Your task to perform on an android device: change the clock style Image 0: 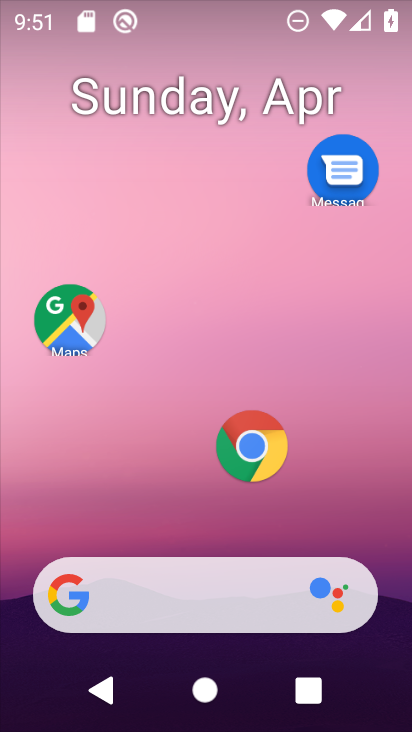
Step 0: drag from (189, 518) to (231, 58)
Your task to perform on an android device: change the clock style Image 1: 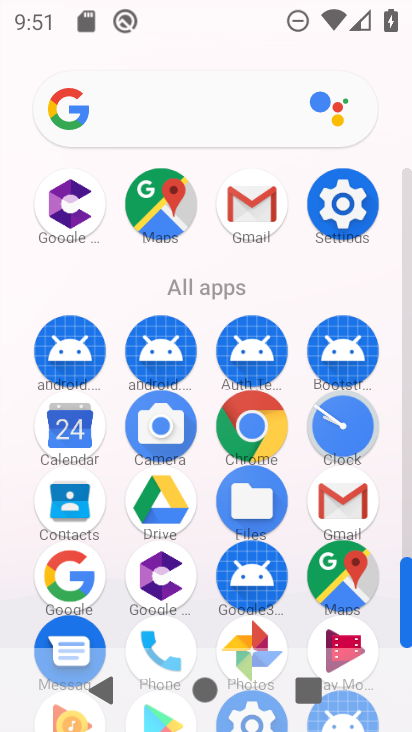
Step 1: click (345, 438)
Your task to perform on an android device: change the clock style Image 2: 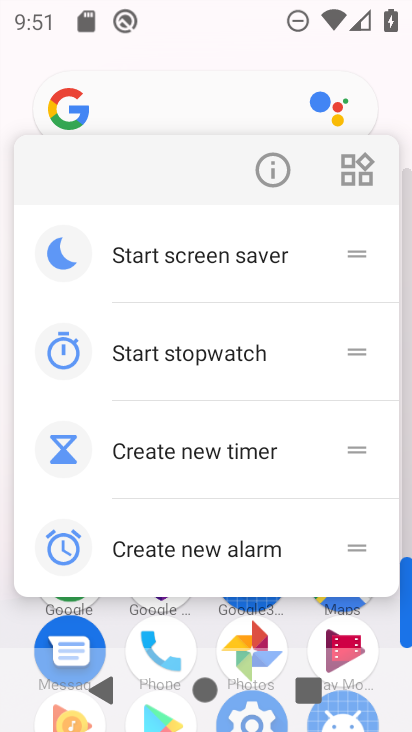
Step 2: click (284, 178)
Your task to perform on an android device: change the clock style Image 3: 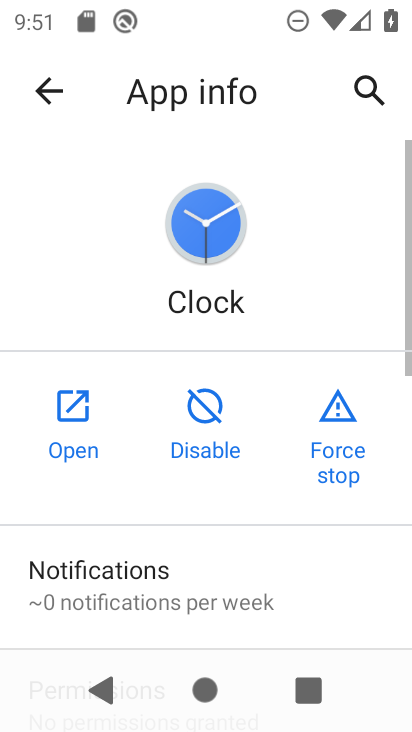
Step 3: click (90, 411)
Your task to perform on an android device: change the clock style Image 4: 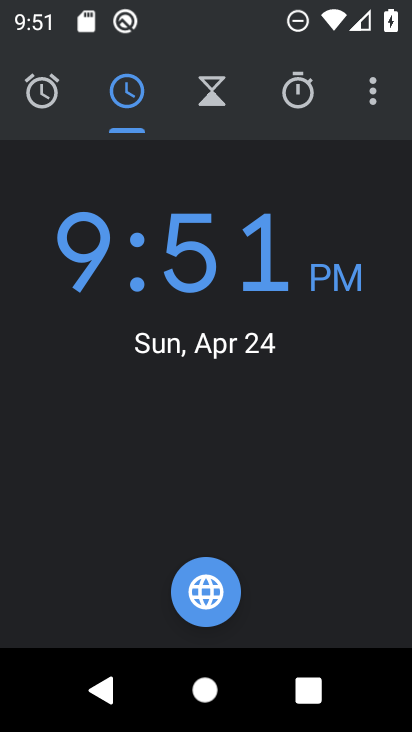
Step 4: click (377, 105)
Your task to perform on an android device: change the clock style Image 5: 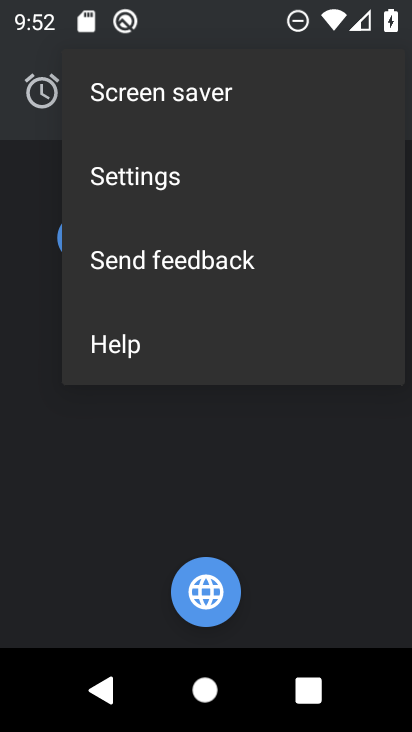
Step 5: click (163, 161)
Your task to perform on an android device: change the clock style Image 6: 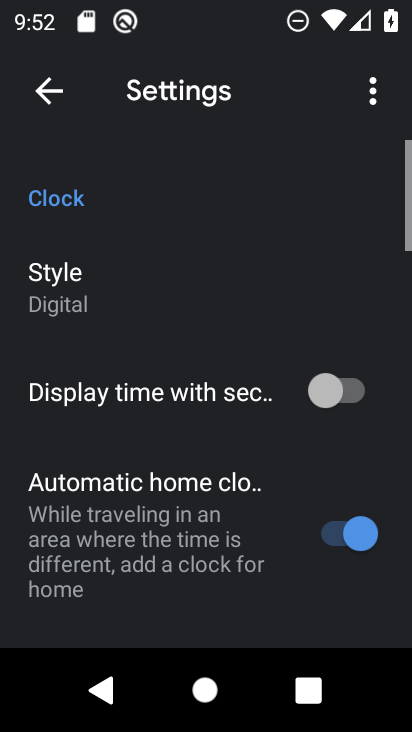
Step 6: click (80, 285)
Your task to perform on an android device: change the clock style Image 7: 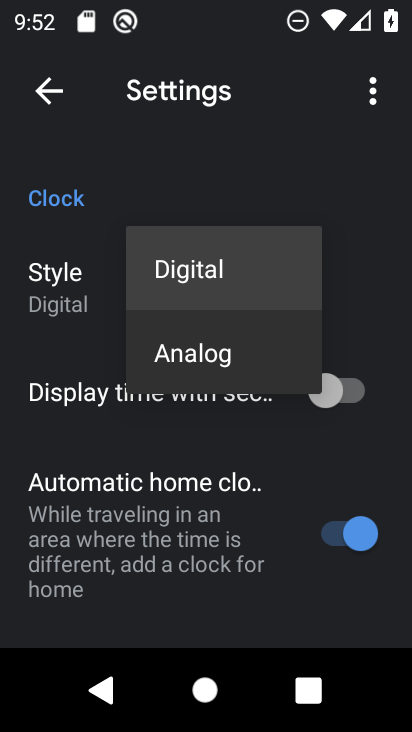
Step 7: click (252, 375)
Your task to perform on an android device: change the clock style Image 8: 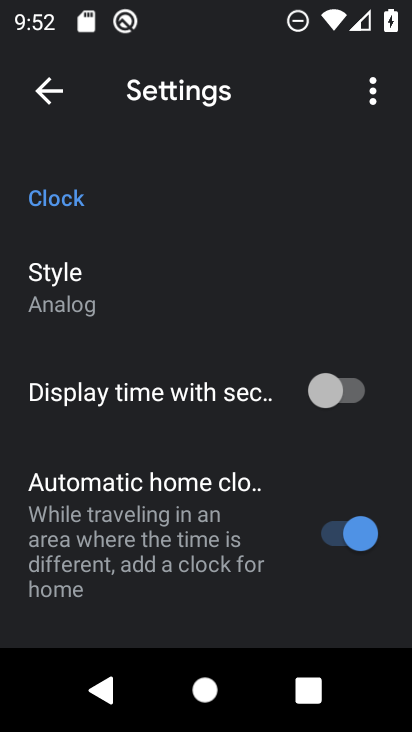
Step 8: task complete